Your task to perform on an android device: Open Youtube and go to the subscriptions tab Image 0: 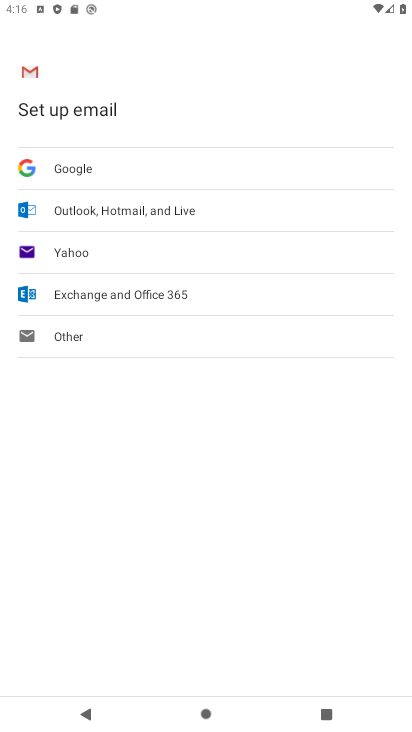
Step 0: press home button
Your task to perform on an android device: Open Youtube and go to the subscriptions tab Image 1: 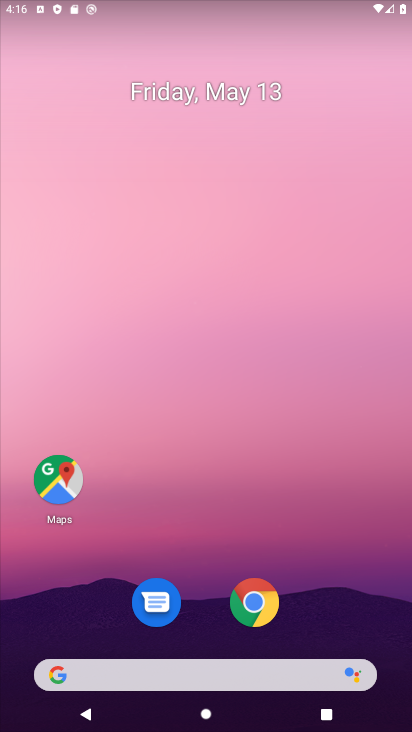
Step 1: click (262, 600)
Your task to perform on an android device: Open Youtube and go to the subscriptions tab Image 2: 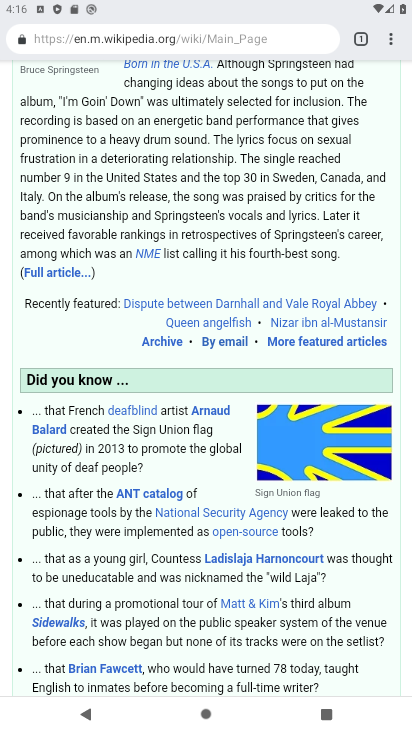
Step 2: click (347, 40)
Your task to perform on an android device: Open Youtube and go to the subscriptions tab Image 3: 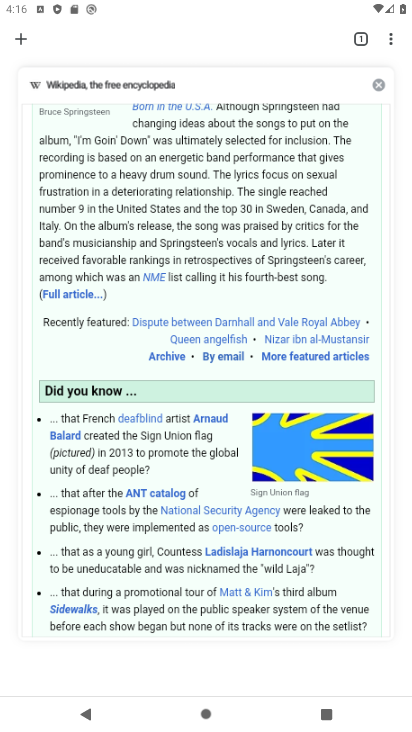
Step 3: click (382, 88)
Your task to perform on an android device: Open Youtube and go to the subscriptions tab Image 4: 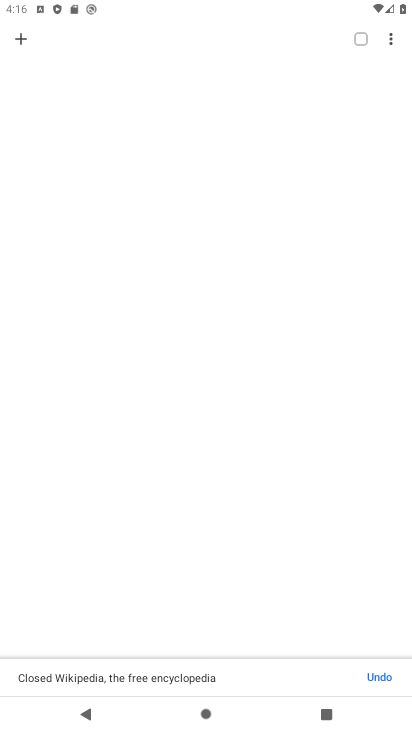
Step 4: click (21, 44)
Your task to perform on an android device: Open Youtube and go to the subscriptions tab Image 5: 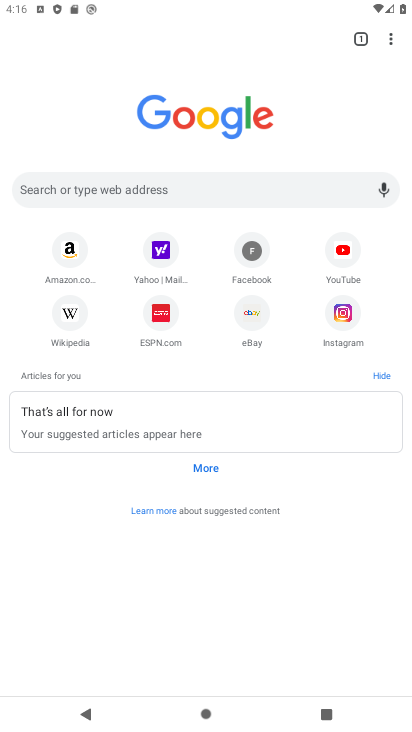
Step 5: click (249, 317)
Your task to perform on an android device: Open Youtube and go to the subscriptions tab Image 6: 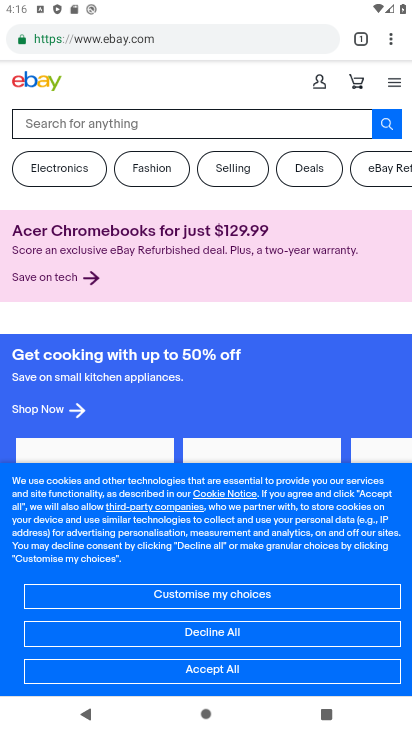
Step 6: task complete